Your task to perform on an android device: clear all cookies in the chrome app Image 0: 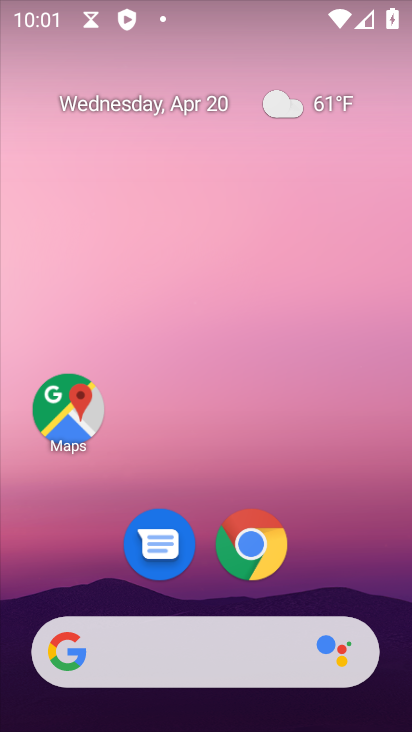
Step 0: drag from (144, 652) to (281, 158)
Your task to perform on an android device: clear all cookies in the chrome app Image 1: 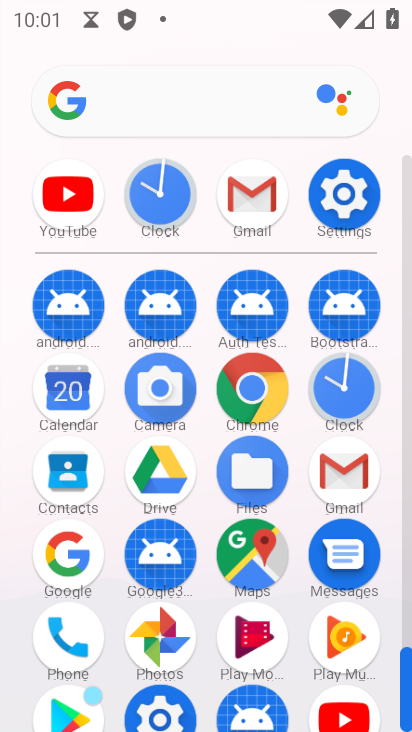
Step 1: click (249, 391)
Your task to perform on an android device: clear all cookies in the chrome app Image 2: 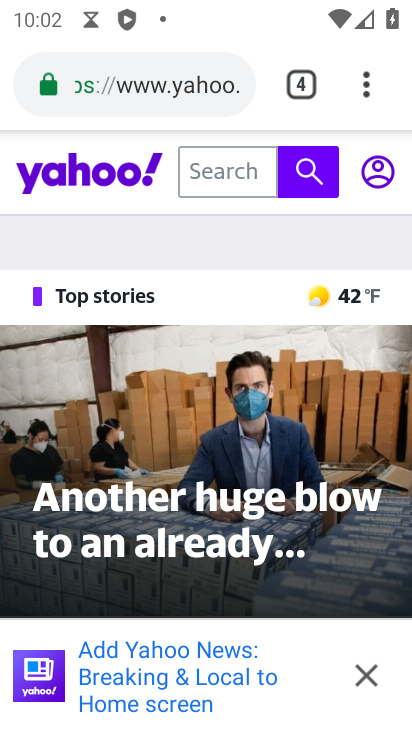
Step 2: click (360, 95)
Your task to perform on an android device: clear all cookies in the chrome app Image 3: 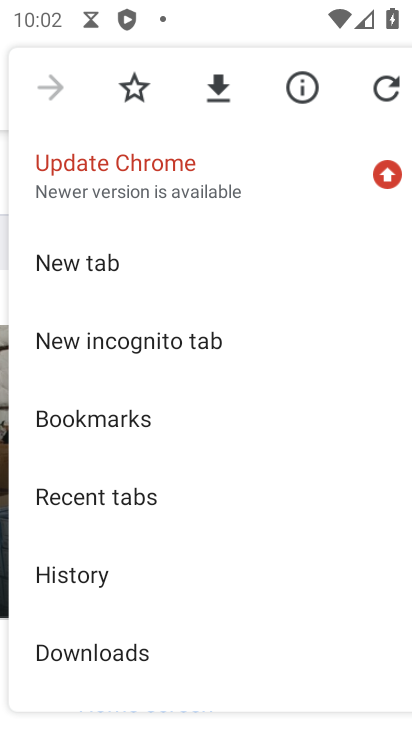
Step 3: drag from (199, 606) to (298, 149)
Your task to perform on an android device: clear all cookies in the chrome app Image 4: 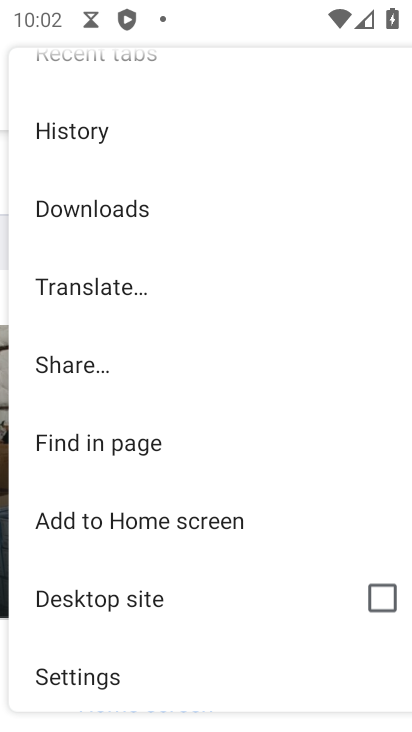
Step 4: click (65, 671)
Your task to perform on an android device: clear all cookies in the chrome app Image 5: 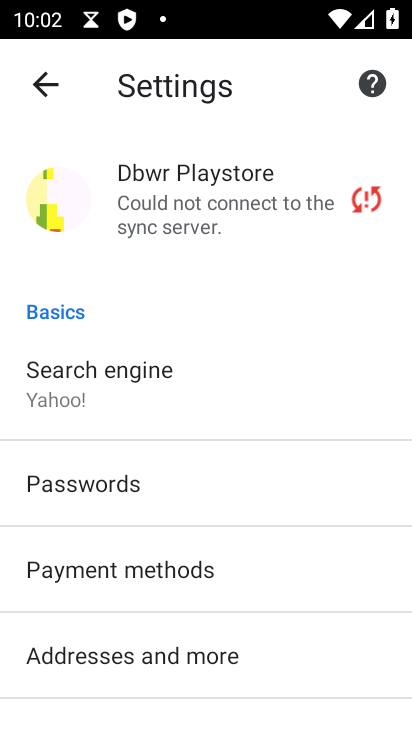
Step 5: drag from (235, 539) to (312, 190)
Your task to perform on an android device: clear all cookies in the chrome app Image 6: 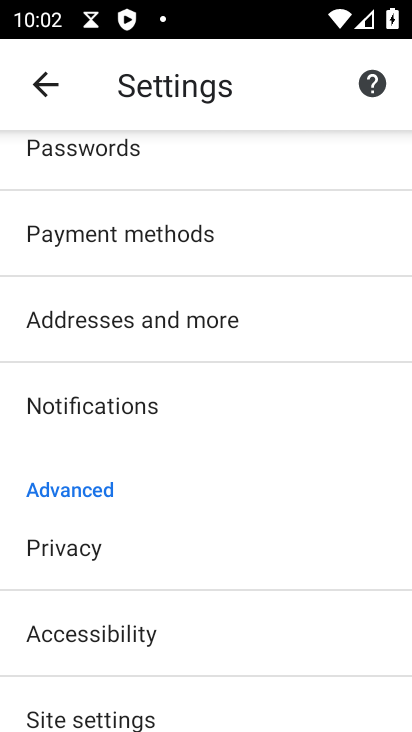
Step 6: click (54, 543)
Your task to perform on an android device: clear all cookies in the chrome app Image 7: 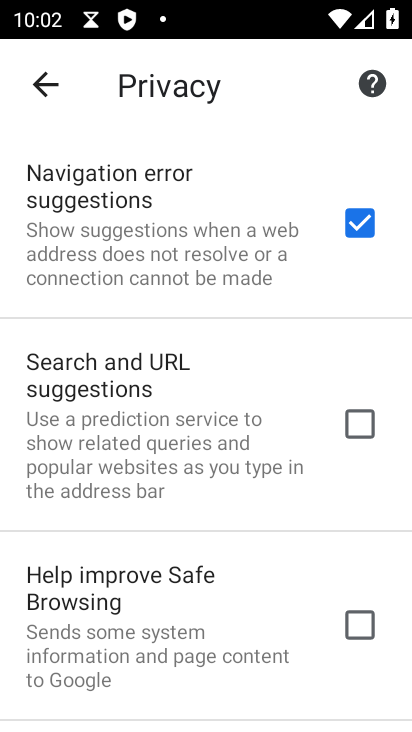
Step 7: drag from (93, 614) to (185, 235)
Your task to perform on an android device: clear all cookies in the chrome app Image 8: 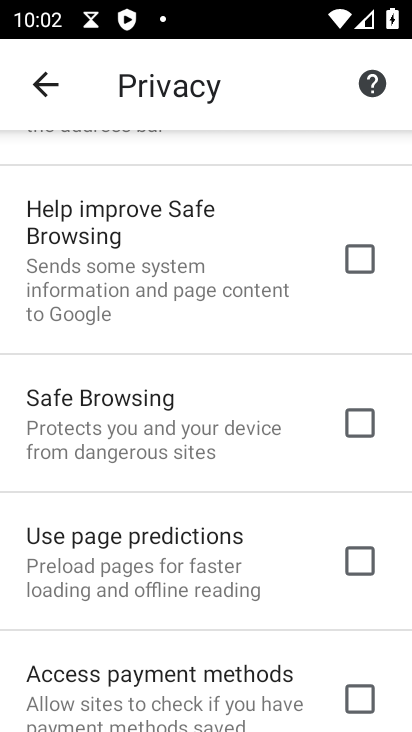
Step 8: drag from (144, 476) to (231, 173)
Your task to perform on an android device: clear all cookies in the chrome app Image 9: 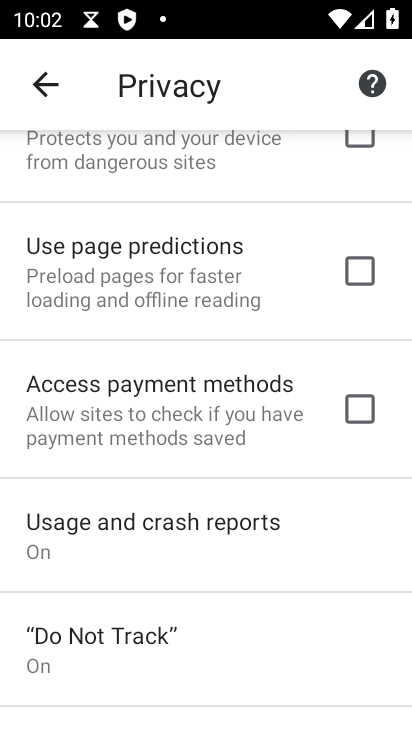
Step 9: drag from (157, 604) to (289, 149)
Your task to perform on an android device: clear all cookies in the chrome app Image 10: 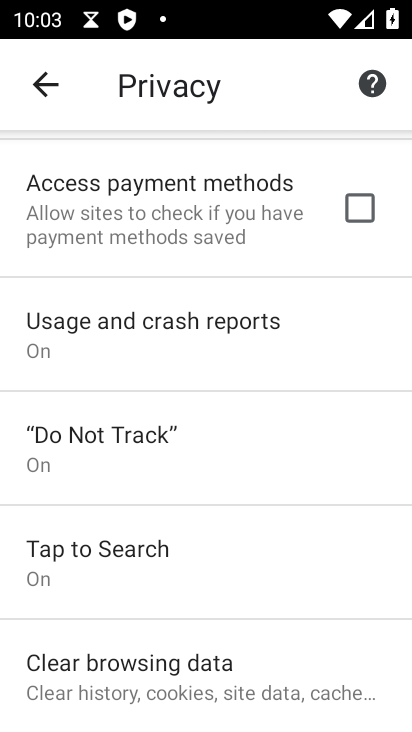
Step 10: click (189, 672)
Your task to perform on an android device: clear all cookies in the chrome app Image 11: 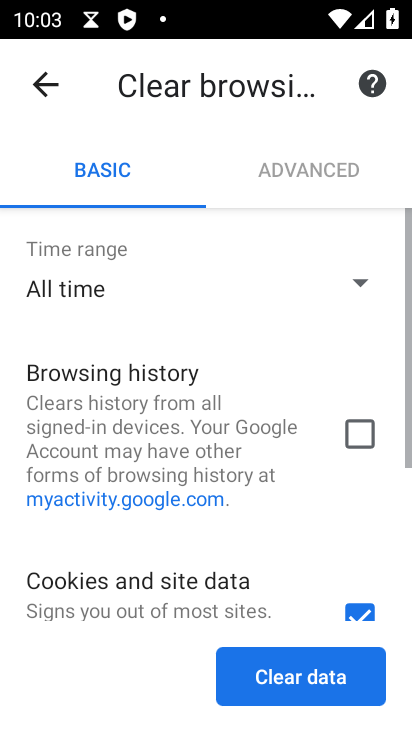
Step 11: drag from (278, 547) to (314, 365)
Your task to perform on an android device: clear all cookies in the chrome app Image 12: 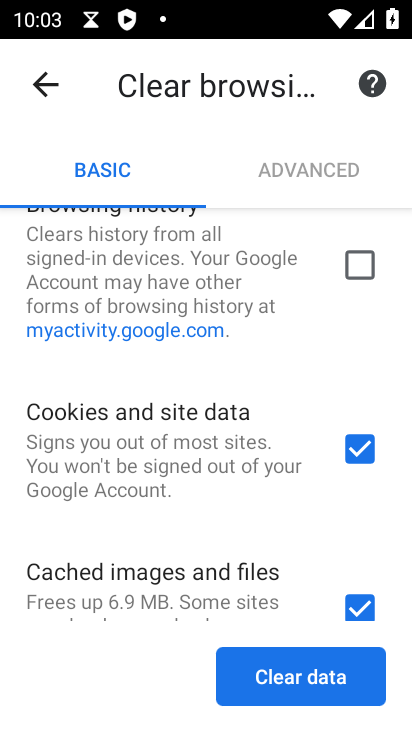
Step 12: click (351, 608)
Your task to perform on an android device: clear all cookies in the chrome app Image 13: 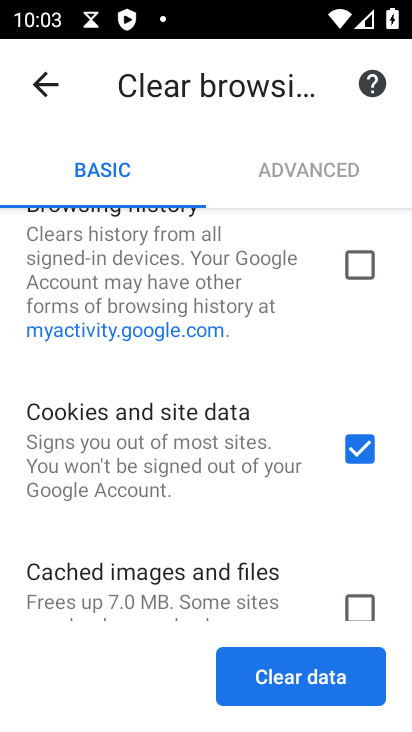
Step 13: click (308, 676)
Your task to perform on an android device: clear all cookies in the chrome app Image 14: 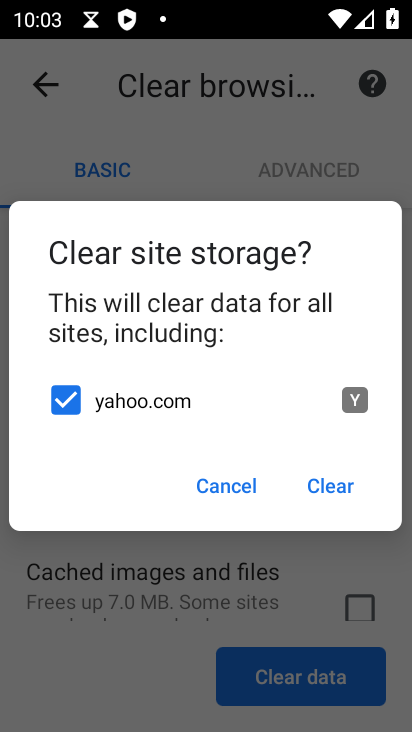
Step 14: click (339, 488)
Your task to perform on an android device: clear all cookies in the chrome app Image 15: 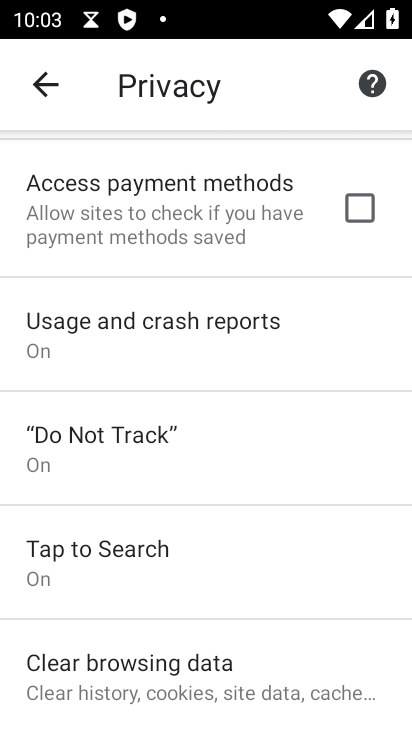
Step 15: task complete